Your task to perform on an android device: Add "bose soundlink mini" to the cart on ebay, then select checkout. Image 0: 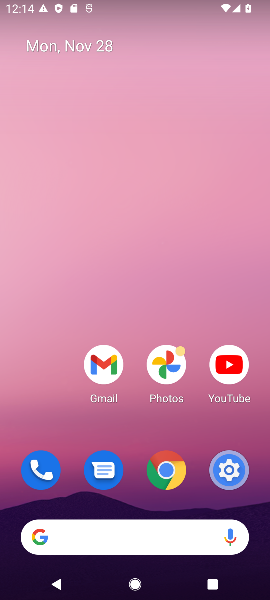
Step 0: press home button
Your task to perform on an android device: Add "bose soundlink mini" to the cart on ebay, then select checkout. Image 1: 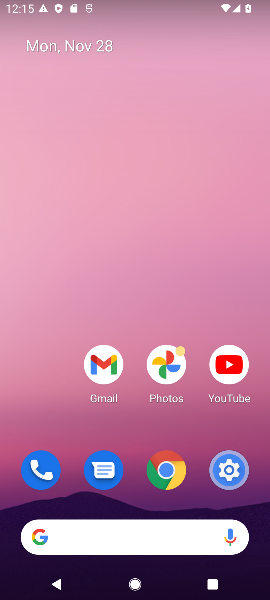
Step 1: click (100, 546)
Your task to perform on an android device: Add "bose soundlink mini" to the cart on ebay, then select checkout. Image 2: 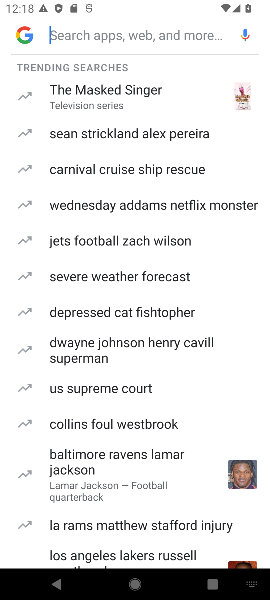
Step 2: press home button
Your task to perform on an android device: Add "bose soundlink mini" to the cart on ebay, then select checkout. Image 3: 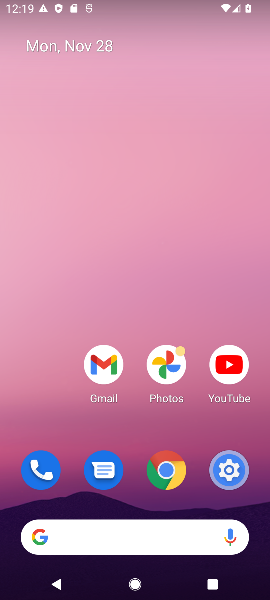
Step 3: click (139, 538)
Your task to perform on an android device: Add "bose soundlink mini" to the cart on ebay, then select checkout. Image 4: 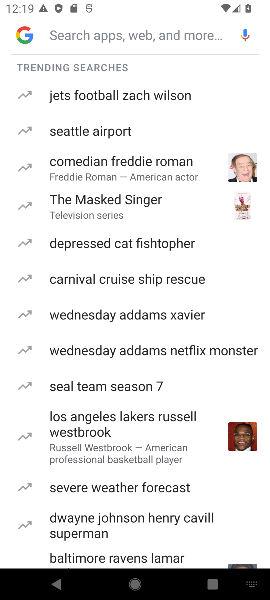
Step 4: type "ebay"
Your task to perform on an android device: Add "bose soundlink mini" to the cart on ebay, then select checkout. Image 5: 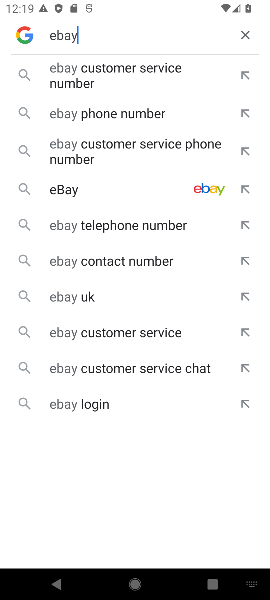
Step 5: click (157, 183)
Your task to perform on an android device: Add "bose soundlink mini" to the cart on ebay, then select checkout. Image 6: 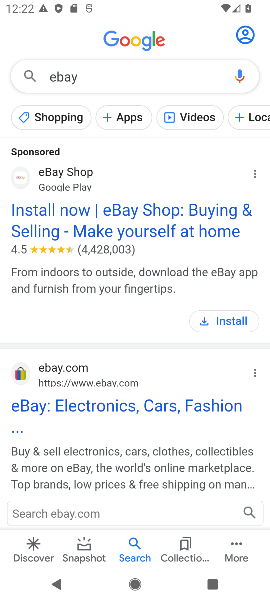
Step 6: press home button
Your task to perform on an android device: Add "bose soundlink mini" to the cart on ebay, then select checkout. Image 7: 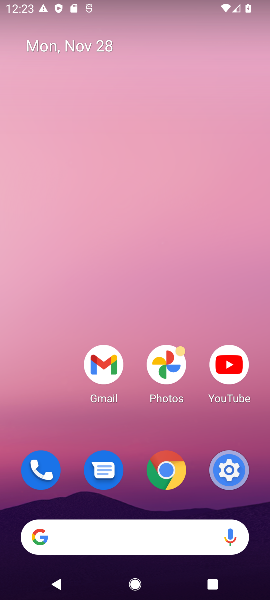
Step 7: click (144, 544)
Your task to perform on an android device: Add "bose soundlink mini" to the cart on ebay, then select checkout. Image 8: 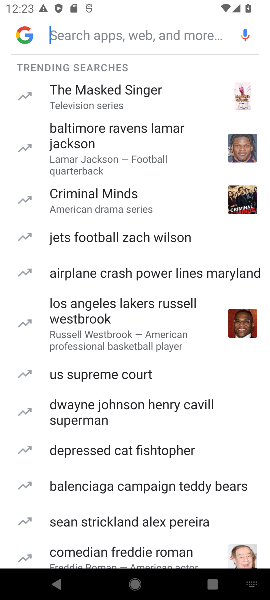
Step 8: type "ebay.com"
Your task to perform on an android device: Add "bose soundlink mini" to the cart on ebay, then select checkout. Image 9: 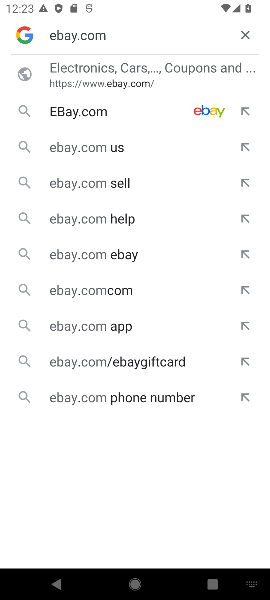
Step 9: click (106, 105)
Your task to perform on an android device: Add "bose soundlink mini" to the cart on ebay, then select checkout. Image 10: 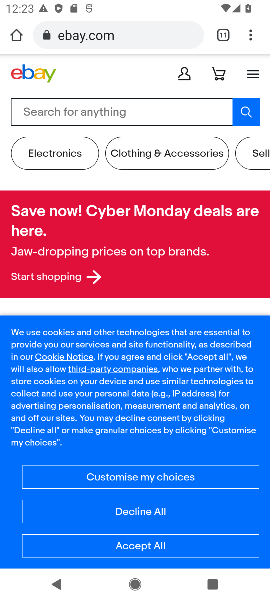
Step 10: click (110, 104)
Your task to perform on an android device: Add "bose soundlink mini" to the cart on ebay, then select checkout. Image 11: 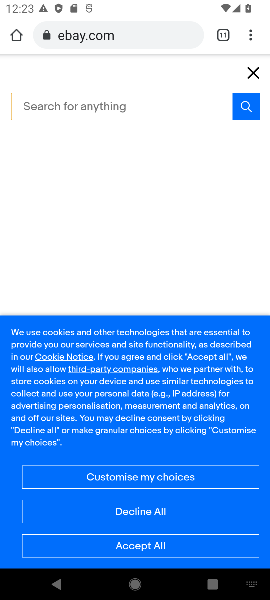
Step 11: type "bose sounflind"
Your task to perform on an android device: Add "bose soundlink mini" to the cart on ebay, then select checkout. Image 12: 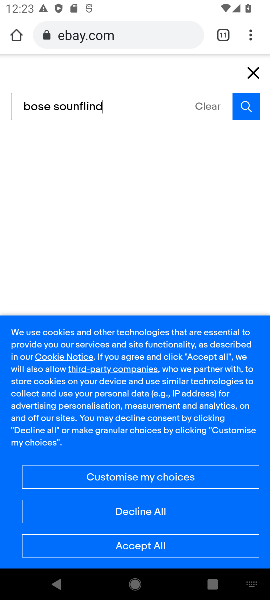
Step 12: click (255, 114)
Your task to perform on an android device: Add "bose soundlink mini" to the cart on ebay, then select checkout. Image 13: 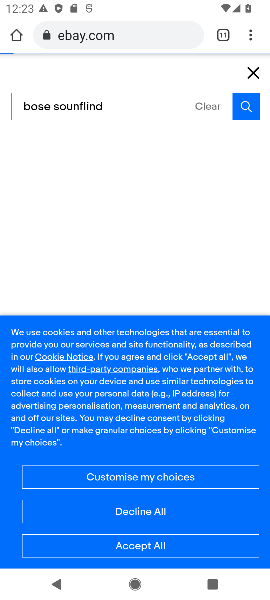
Step 13: task complete